Your task to perform on an android device: Go to notification settings Image 0: 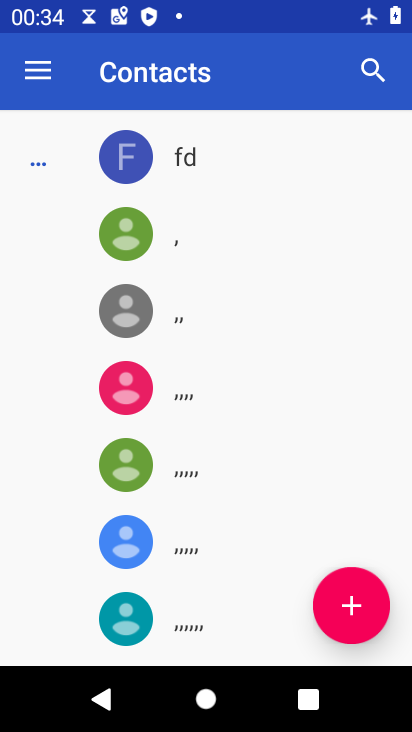
Step 0: press home button
Your task to perform on an android device: Go to notification settings Image 1: 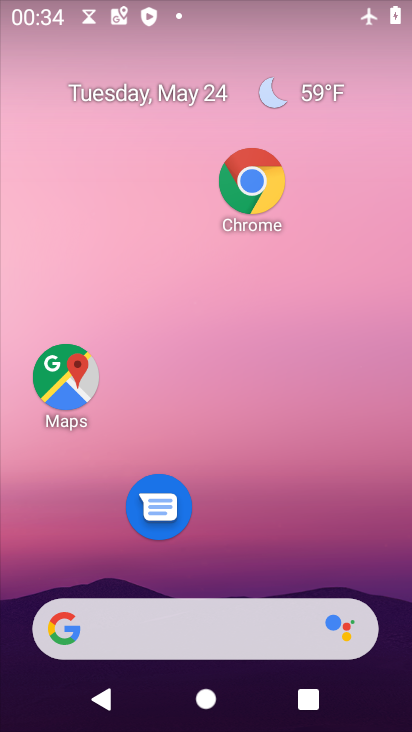
Step 1: drag from (243, 464) to (264, 309)
Your task to perform on an android device: Go to notification settings Image 2: 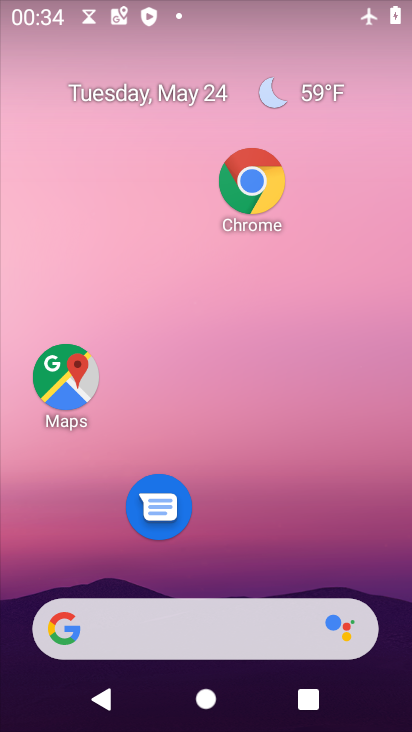
Step 2: drag from (265, 532) to (287, 300)
Your task to perform on an android device: Go to notification settings Image 3: 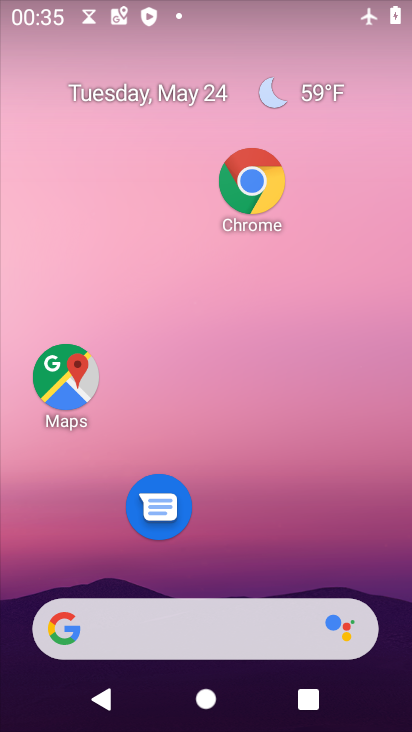
Step 3: drag from (276, 582) to (272, 312)
Your task to perform on an android device: Go to notification settings Image 4: 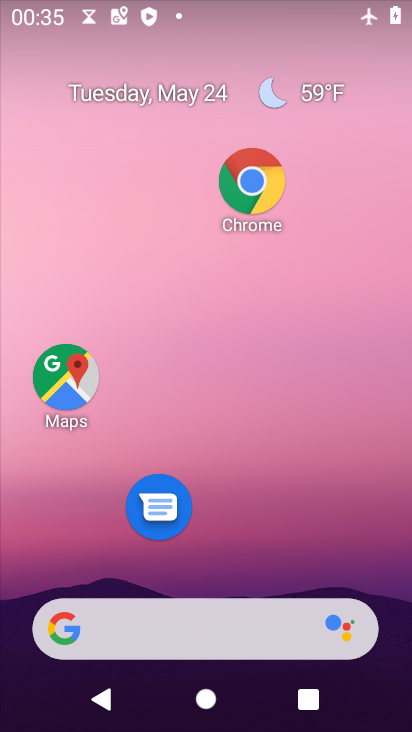
Step 4: drag from (306, 537) to (349, 199)
Your task to perform on an android device: Go to notification settings Image 5: 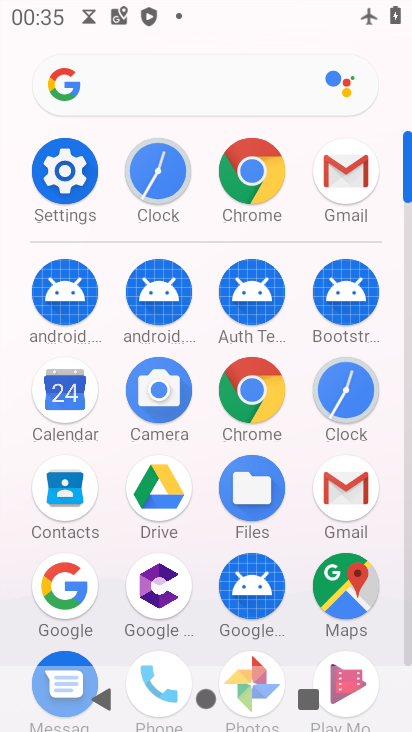
Step 5: drag from (29, 134) to (76, 144)
Your task to perform on an android device: Go to notification settings Image 6: 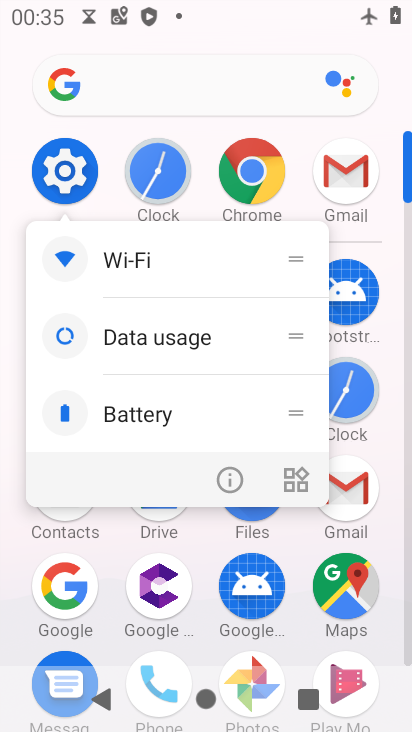
Step 6: click (58, 175)
Your task to perform on an android device: Go to notification settings Image 7: 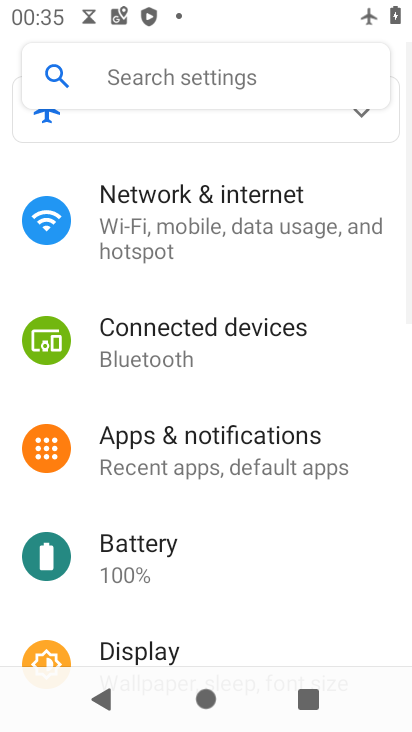
Step 7: click (177, 463)
Your task to perform on an android device: Go to notification settings Image 8: 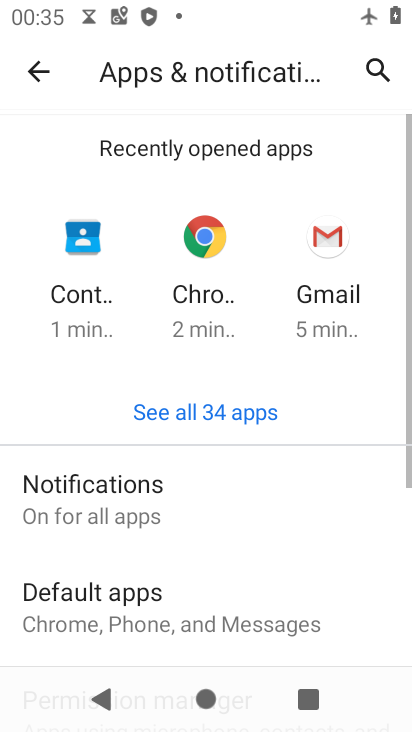
Step 8: click (177, 476)
Your task to perform on an android device: Go to notification settings Image 9: 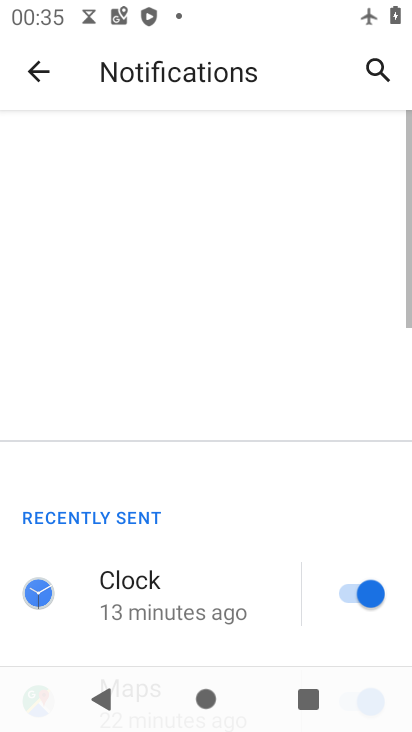
Step 9: task complete